Your task to perform on an android device: Search for pizza restaurants on Maps Image 0: 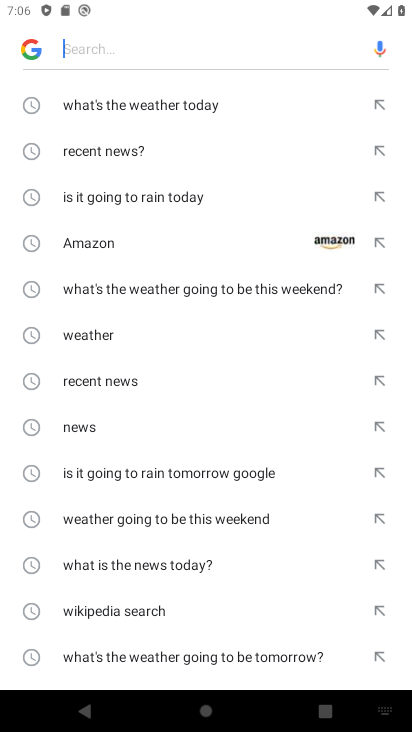
Step 0: press home button
Your task to perform on an android device: Search for pizza restaurants on Maps Image 1: 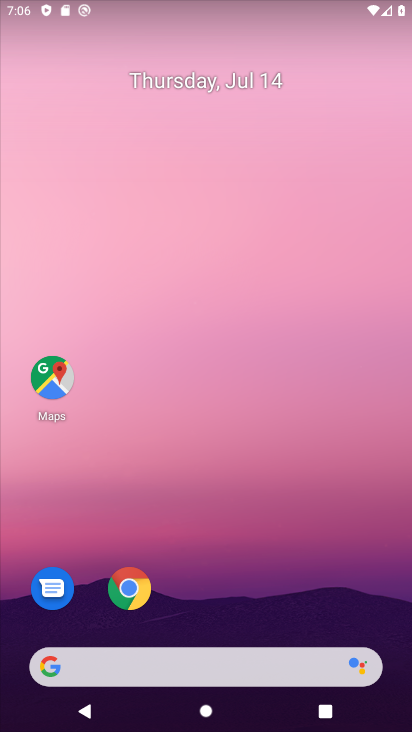
Step 1: click (53, 373)
Your task to perform on an android device: Search for pizza restaurants on Maps Image 2: 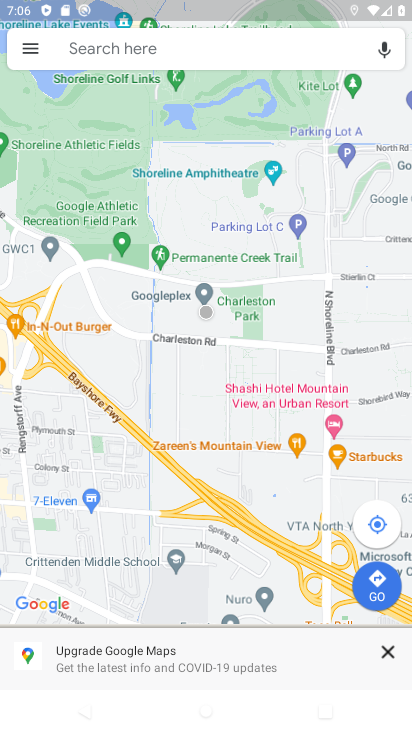
Step 2: click (136, 62)
Your task to perform on an android device: Search for pizza restaurants on Maps Image 3: 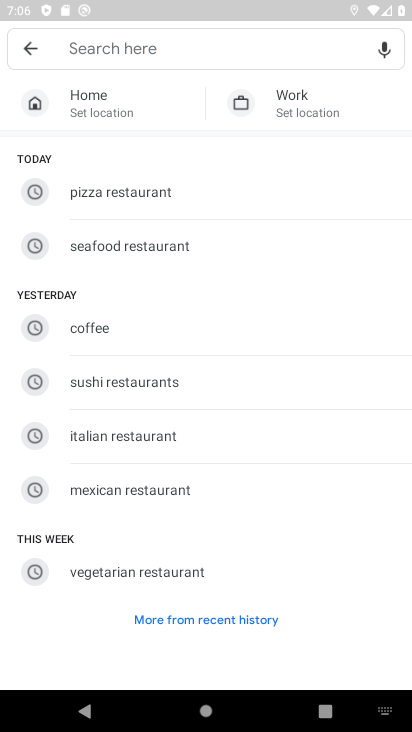
Step 3: click (117, 202)
Your task to perform on an android device: Search for pizza restaurants on Maps Image 4: 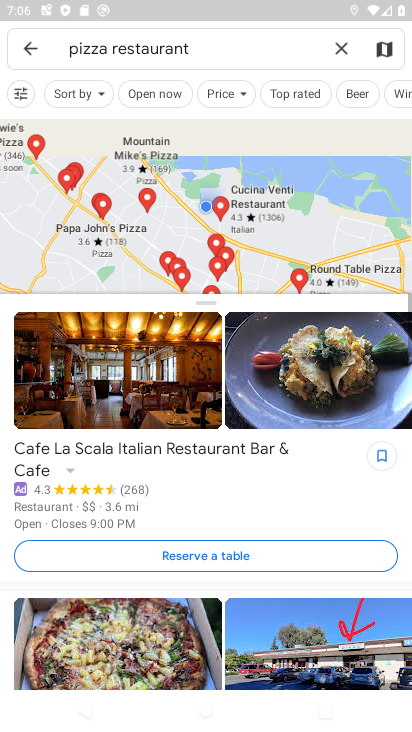
Step 4: task complete